Your task to perform on an android device: toggle notifications settings in the gmail app Image 0: 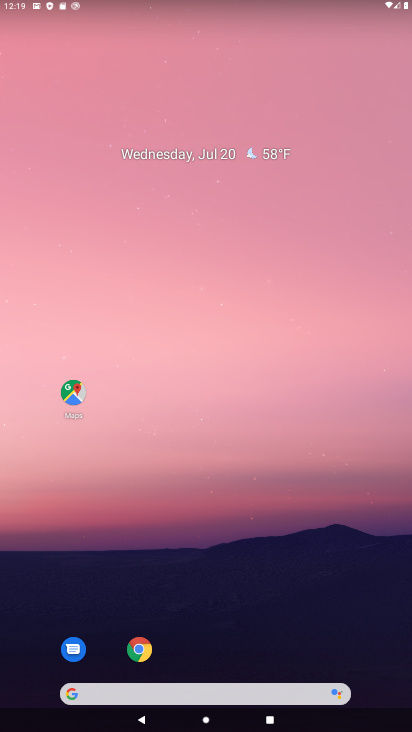
Step 0: drag from (190, 645) to (220, 124)
Your task to perform on an android device: toggle notifications settings in the gmail app Image 1: 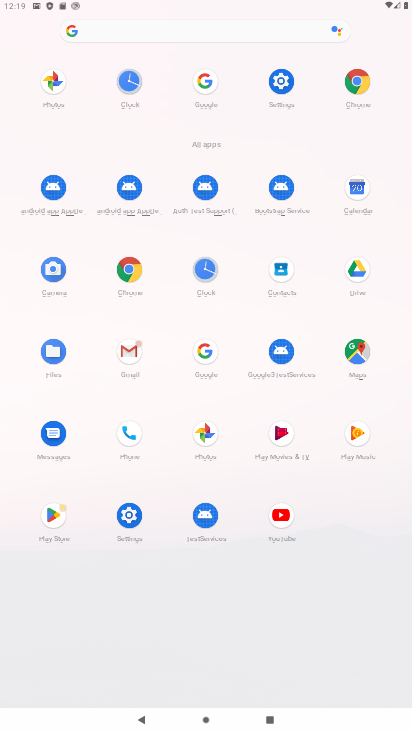
Step 1: click (136, 355)
Your task to perform on an android device: toggle notifications settings in the gmail app Image 2: 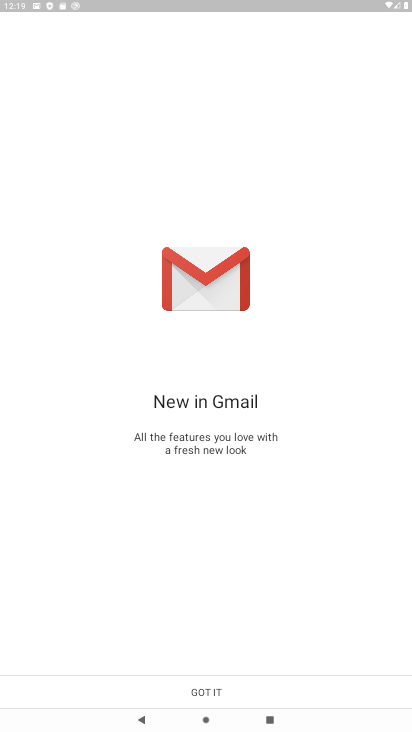
Step 2: click (207, 693)
Your task to perform on an android device: toggle notifications settings in the gmail app Image 3: 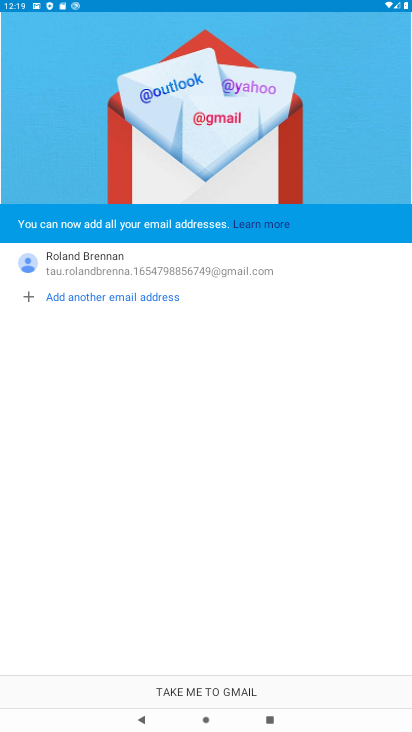
Step 3: click (221, 677)
Your task to perform on an android device: toggle notifications settings in the gmail app Image 4: 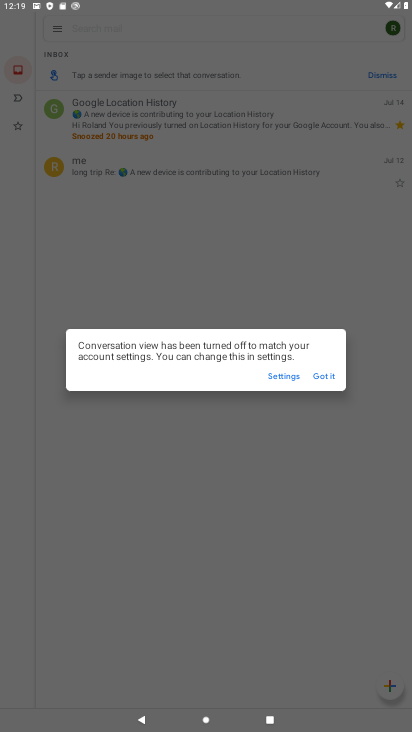
Step 4: click (289, 378)
Your task to perform on an android device: toggle notifications settings in the gmail app Image 5: 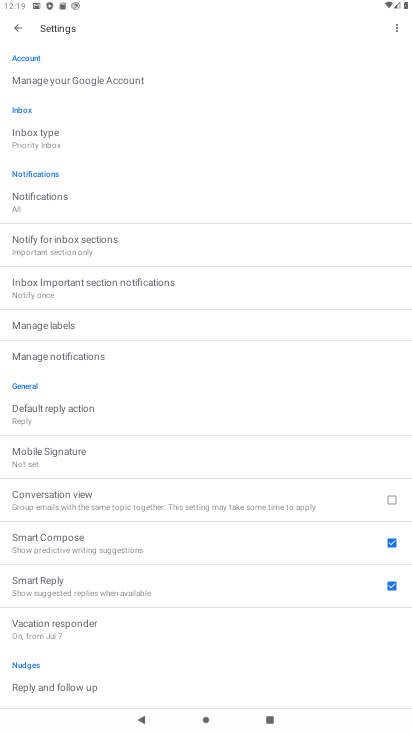
Step 5: click (75, 197)
Your task to perform on an android device: toggle notifications settings in the gmail app Image 6: 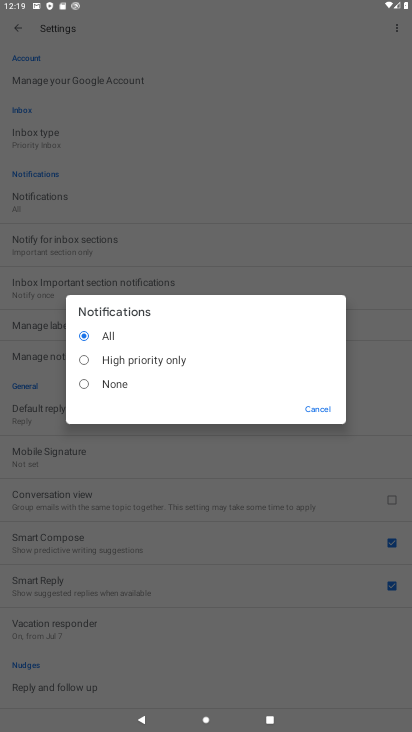
Step 6: click (86, 382)
Your task to perform on an android device: toggle notifications settings in the gmail app Image 7: 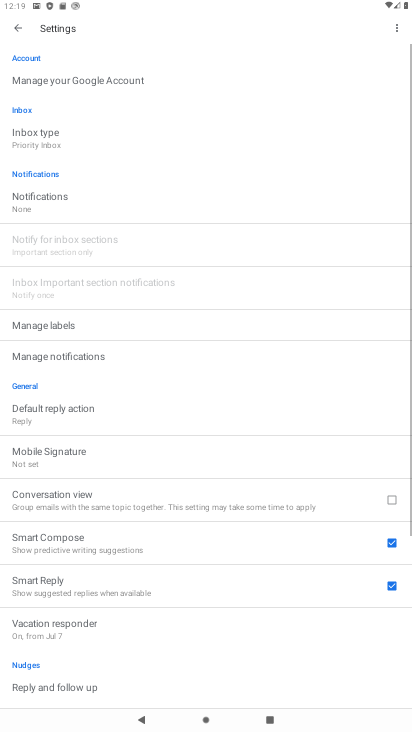
Step 7: task complete